Your task to perform on an android device: Open internet settings Image 0: 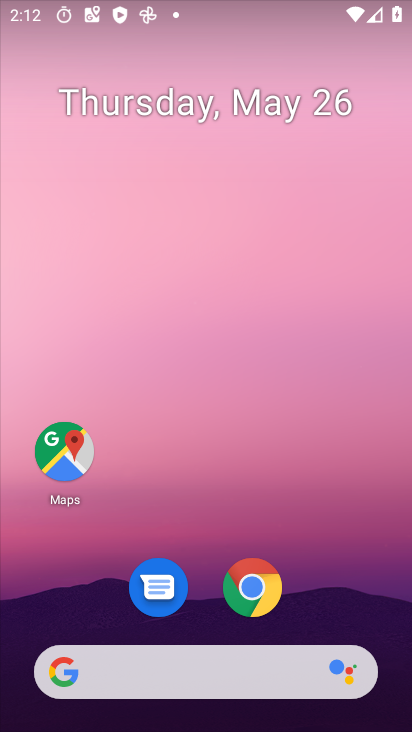
Step 0: drag from (383, 604) to (378, 233)
Your task to perform on an android device: Open internet settings Image 1: 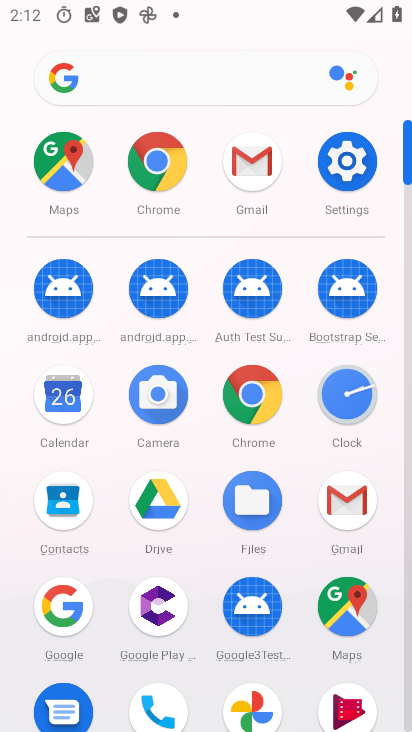
Step 1: click (356, 171)
Your task to perform on an android device: Open internet settings Image 2: 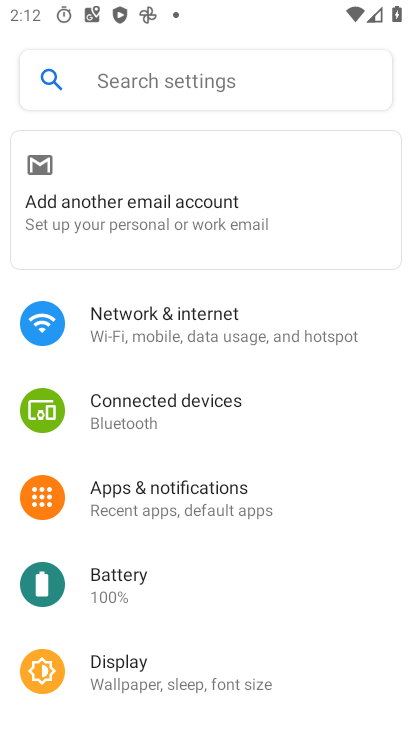
Step 2: drag from (363, 557) to (362, 426)
Your task to perform on an android device: Open internet settings Image 3: 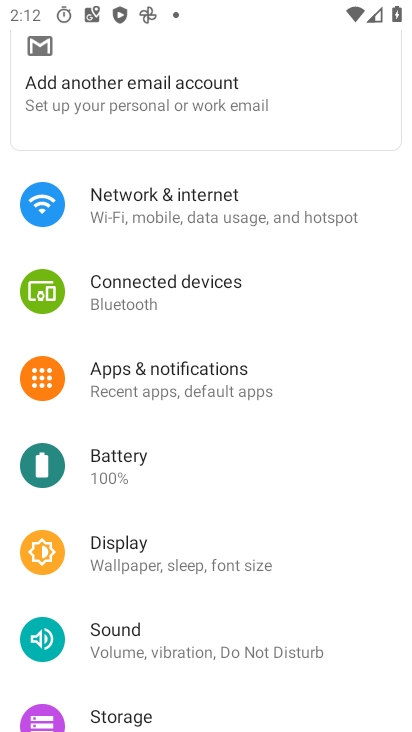
Step 3: drag from (356, 533) to (360, 432)
Your task to perform on an android device: Open internet settings Image 4: 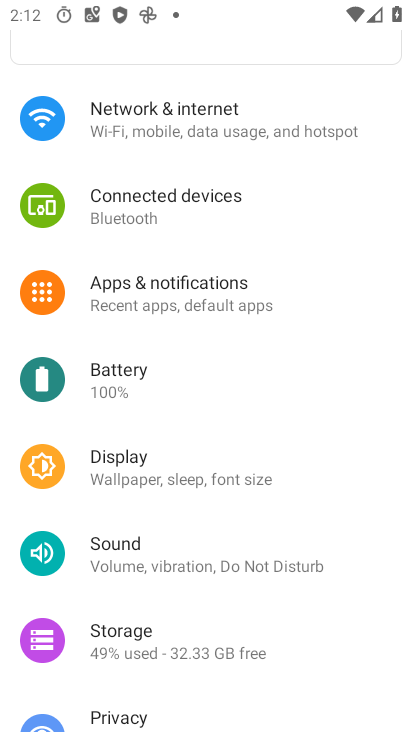
Step 4: drag from (367, 541) to (370, 431)
Your task to perform on an android device: Open internet settings Image 5: 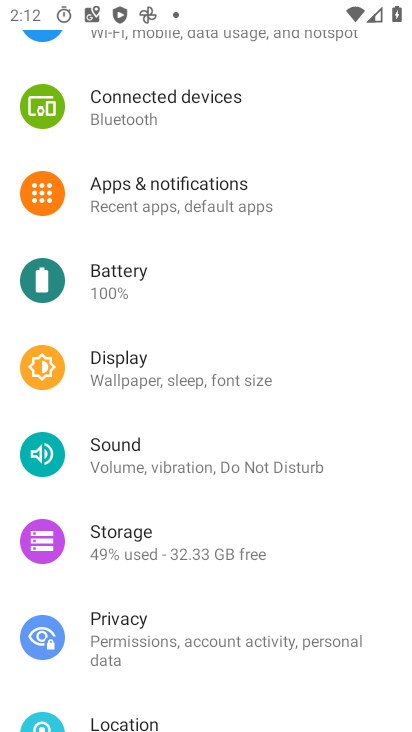
Step 5: drag from (359, 537) to (367, 423)
Your task to perform on an android device: Open internet settings Image 6: 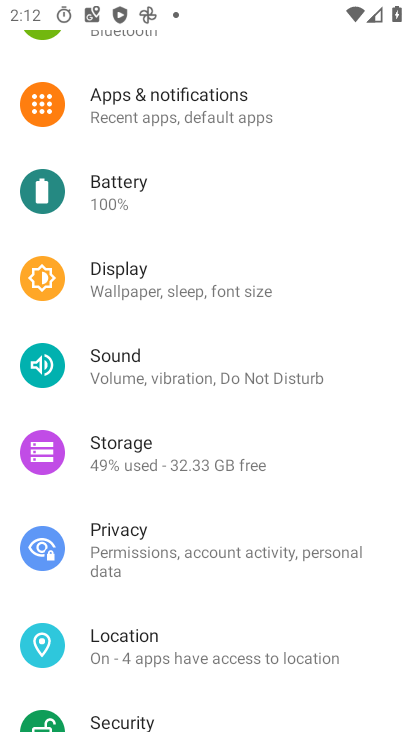
Step 6: drag from (386, 570) to (380, 378)
Your task to perform on an android device: Open internet settings Image 7: 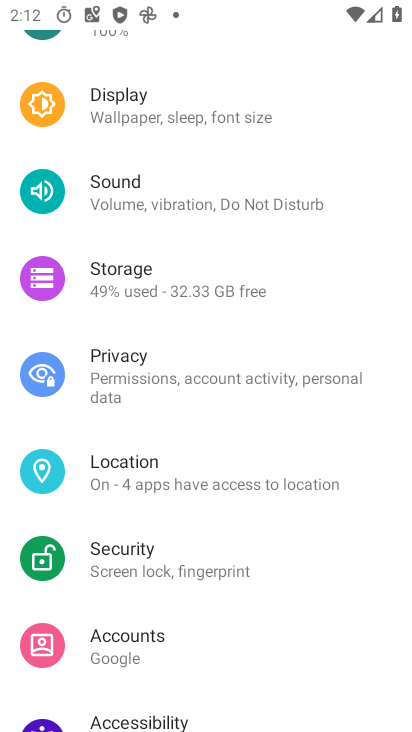
Step 7: drag from (345, 588) to (347, 444)
Your task to perform on an android device: Open internet settings Image 8: 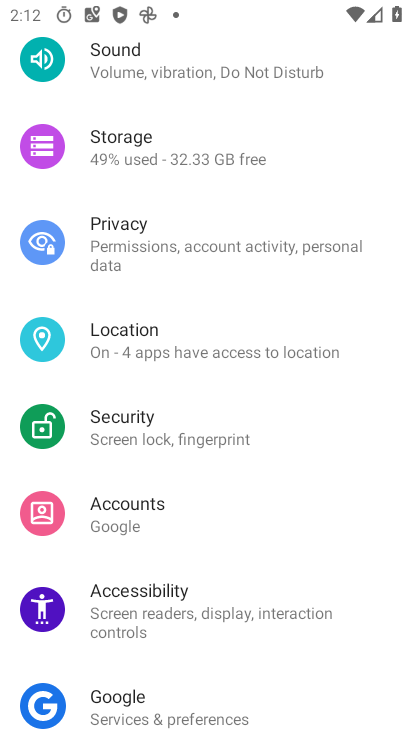
Step 8: drag from (361, 632) to (354, 487)
Your task to perform on an android device: Open internet settings Image 9: 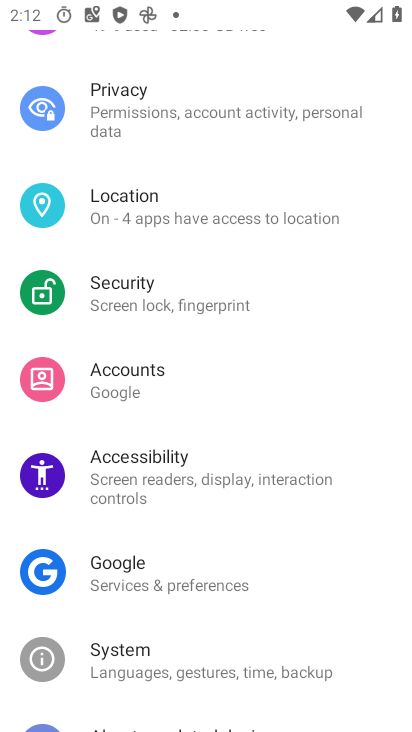
Step 9: drag from (357, 647) to (365, 535)
Your task to perform on an android device: Open internet settings Image 10: 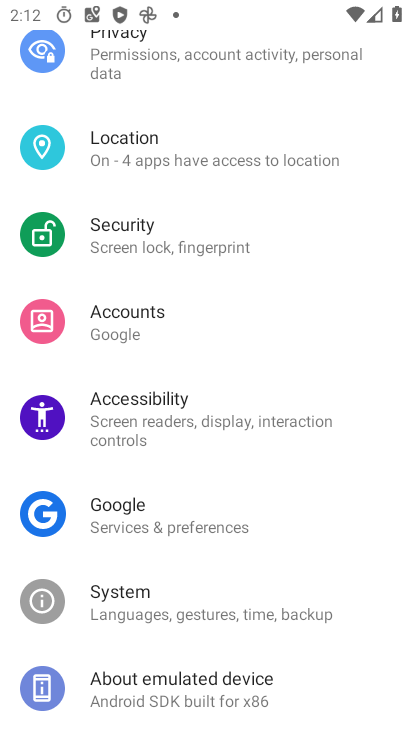
Step 10: drag from (375, 477) to (371, 565)
Your task to perform on an android device: Open internet settings Image 11: 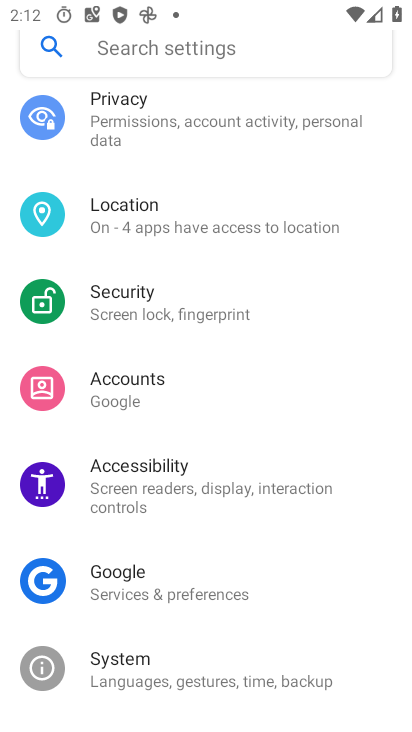
Step 11: drag from (369, 416) to (363, 528)
Your task to perform on an android device: Open internet settings Image 12: 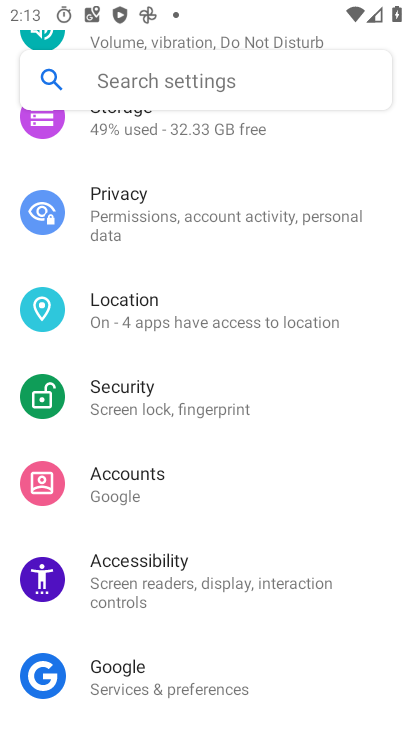
Step 12: drag from (345, 420) to (336, 538)
Your task to perform on an android device: Open internet settings Image 13: 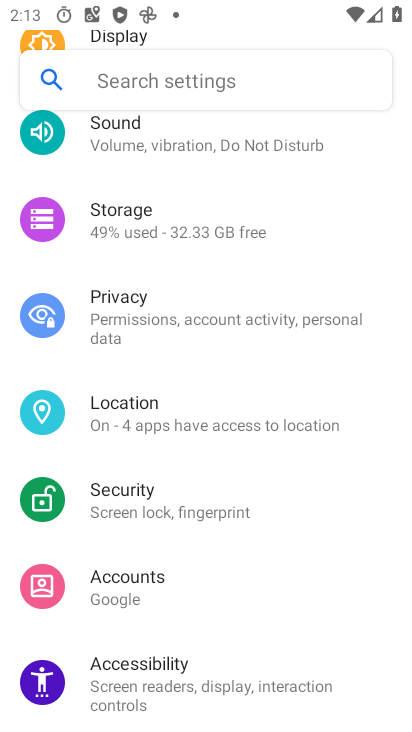
Step 13: drag from (376, 367) to (367, 476)
Your task to perform on an android device: Open internet settings Image 14: 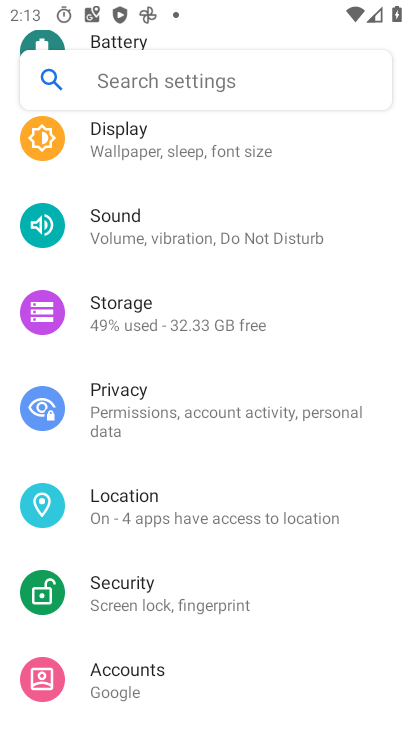
Step 14: drag from (373, 335) to (362, 436)
Your task to perform on an android device: Open internet settings Image 15: 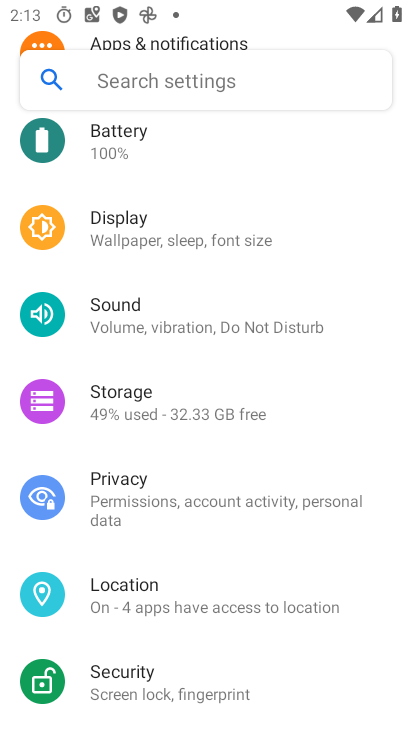
Step 15: drag from (369, 309) to (359, 439)
Your task to perform on an android device: Open internet settings Image 16: 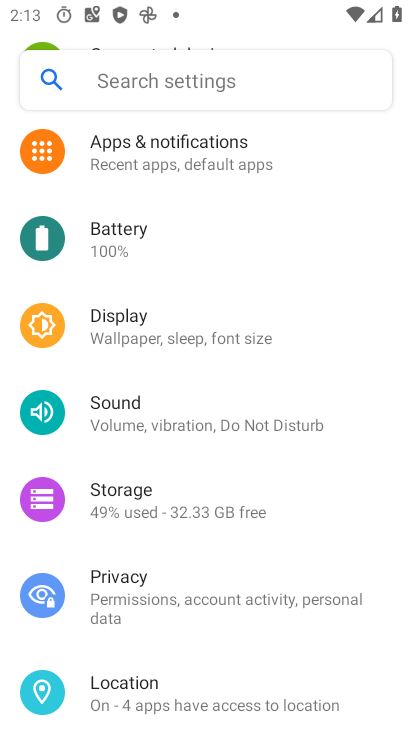
Step 16: drag from (364, 316) to (377, 428)
Your task to perform on an android device: Open internet settings Image 17: 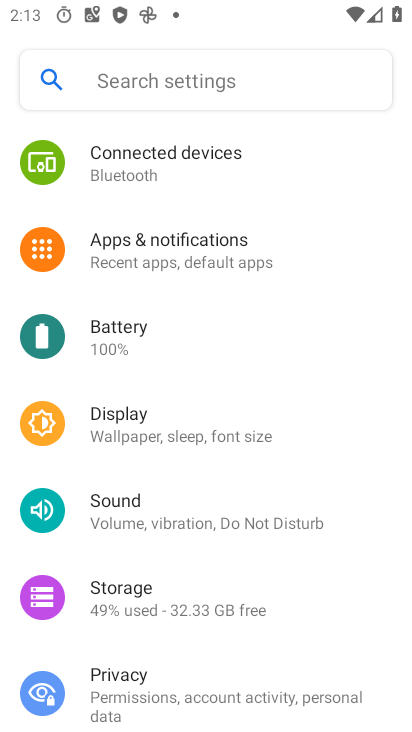
Step 17: drag from (367, 298) to (362, 429)
Your task to perform on an android device: Open internet settings Image 18: 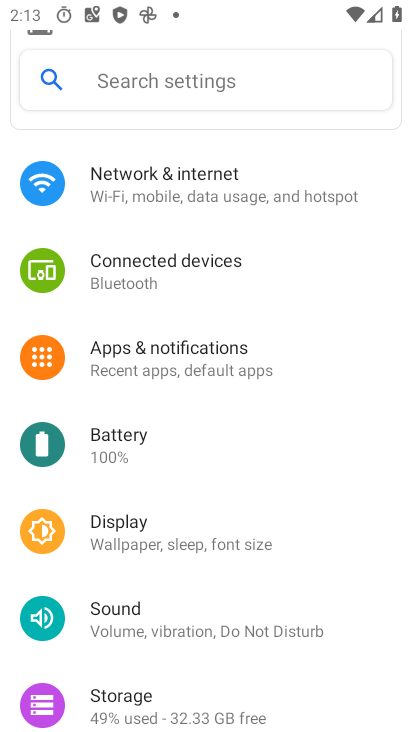
Step 18: drag from (369, 292) to (358, 412)
Your task to perform on an android device: Open internet settings Image 19: 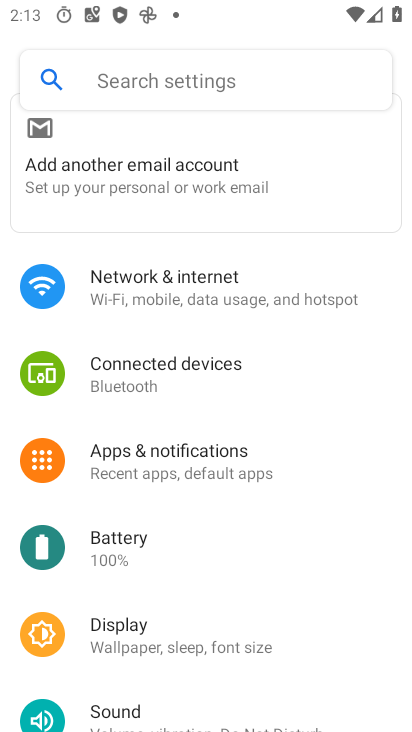
Step 19: click (321, 311)
Your task to perform on an android device: Open internet settings Image 20: 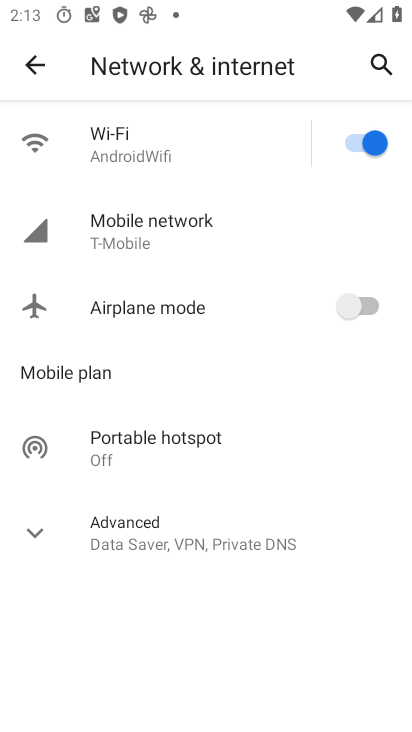
Step 20: task complete